Your task to perform on an android device: Open Android settings Image 0: 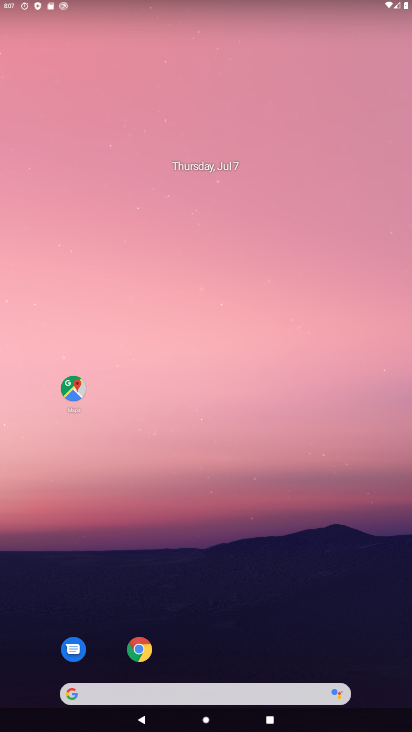
Step 0: drag from (225, 654) to (231, 128)
Your task to perform on an android device: Open Android settings Image 1: 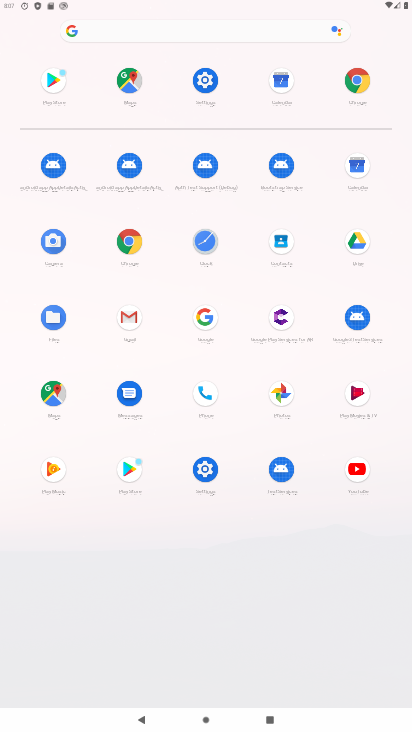
Step 1: click (202, 77)
Your task to perform on an android device: Open Android settings Image 2: 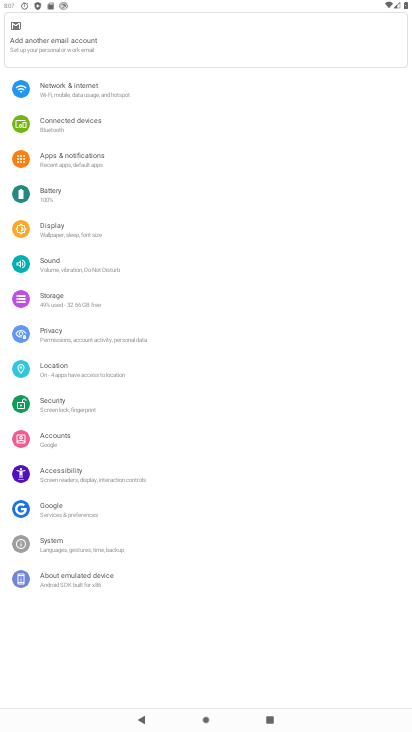
Step 2: click (89, 575)
Your task to perform on an android device: Open Android settings Image 3: 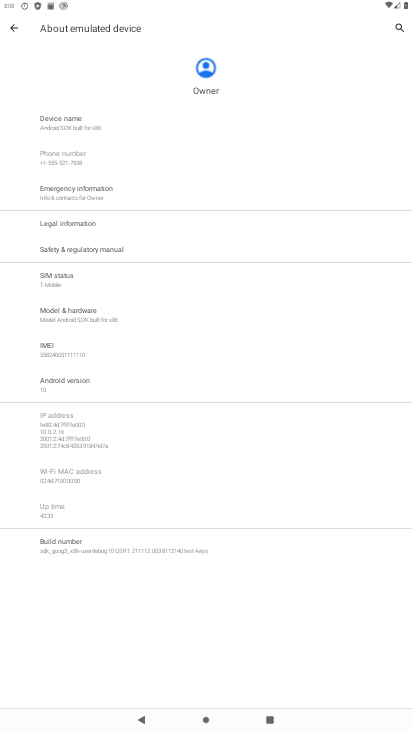
Step 3: click (73, 387)
Your task to perform on an android device: Open Android settings Image 4: 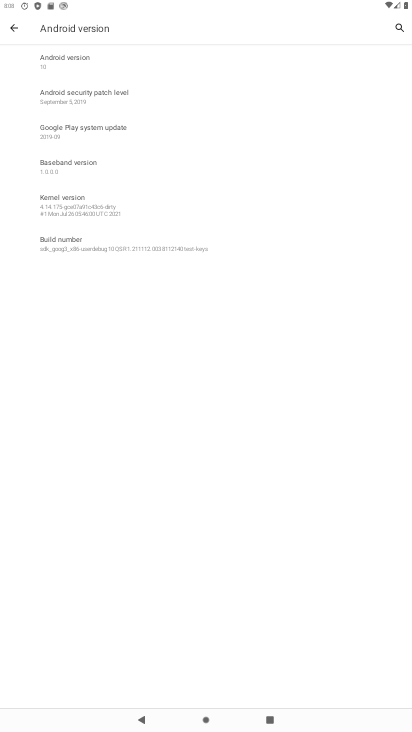
Step 4: task complete